Your task to perform on an android device: Turn on the flashlight Image 0: 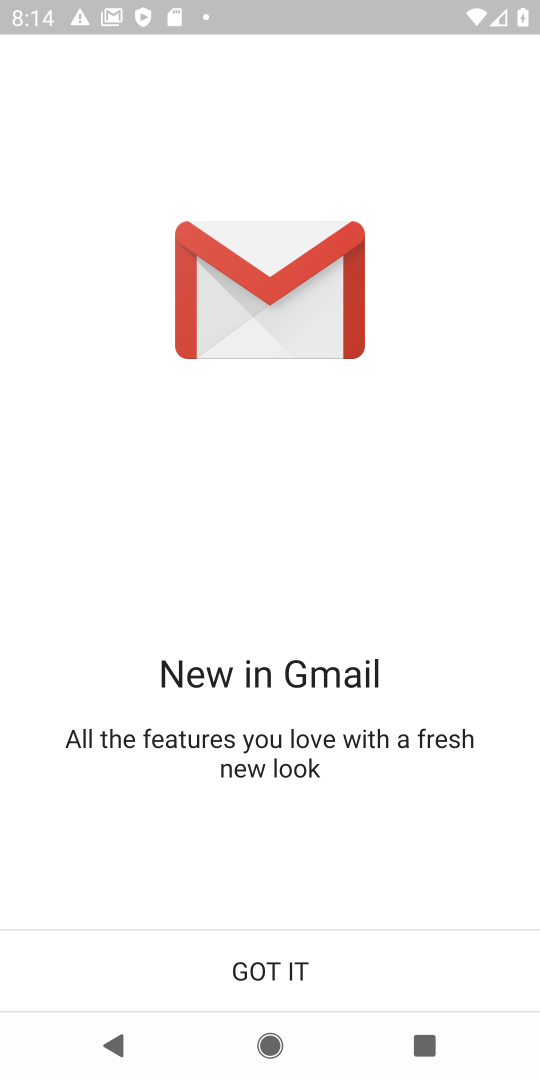
Step 0: drag from (186, 5) to (256, 489)
Your task to perform on an android device: Turn on the flashlight Image 1: 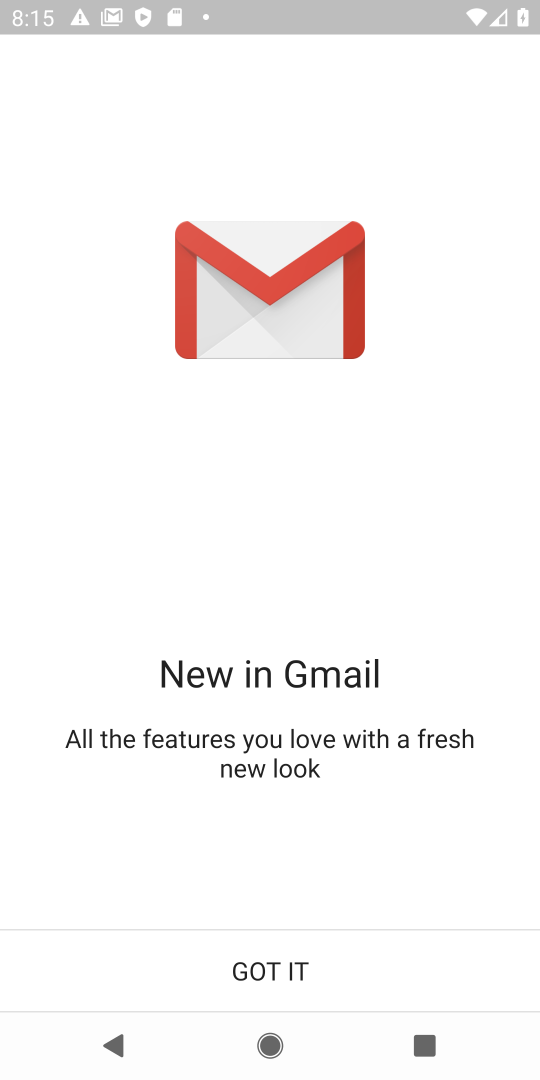
Step 1: task complete